Your task to perform on an android device: open app "Walmart Shopping & Grocery" Image 0: 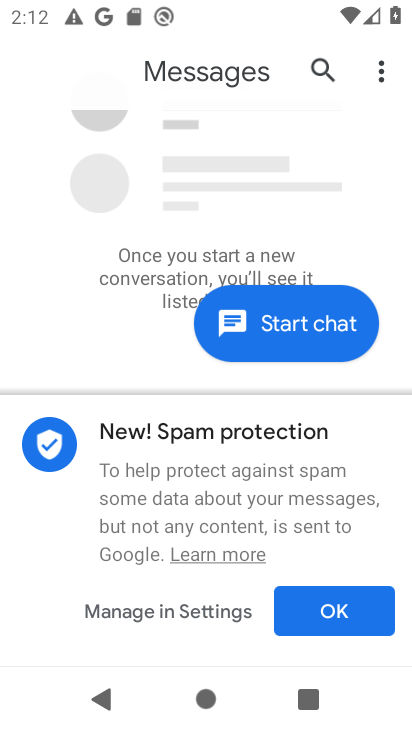
Step 0: press home button
Your task to perform on an android device: open app "Walmart Shopping & Grocery" Image 1: 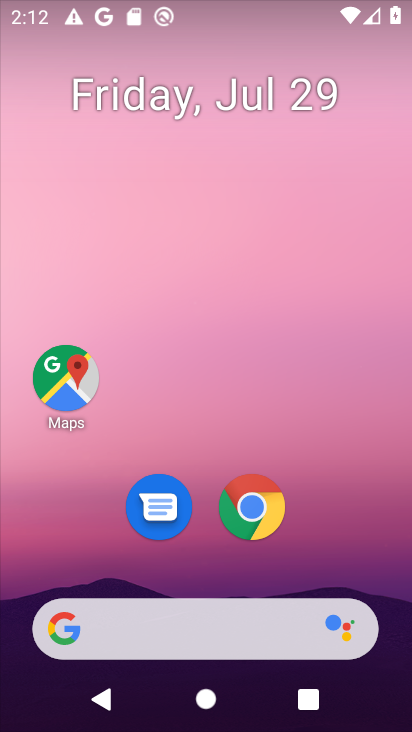
Step 1: drag from (220, 583) to (228, 147)
Your task to perform on an android device: open app "Walmart Shopping & Grocery" Image 2: 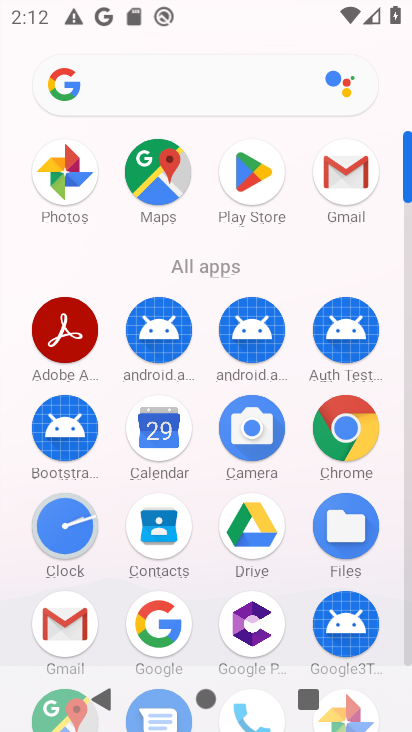
Step 2: click (405, 660)
Your task to perform on an android device: open app "Walmart Shopping & Grocery" Image 3: 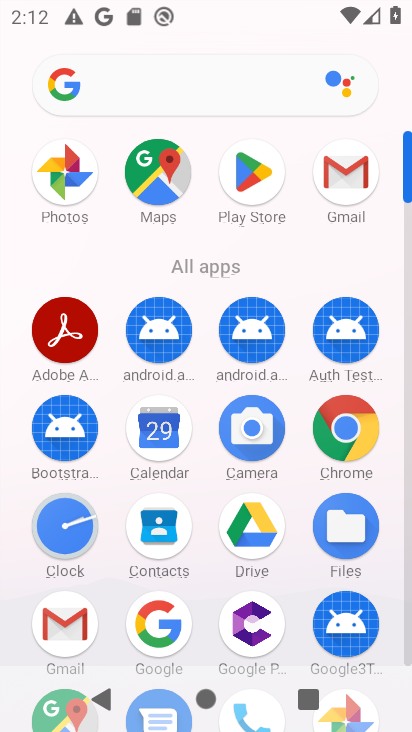
Step 3: click (405, 660)
Your task to perform on an android device: open app "Walmart Shopping & Grocery" Image 4: 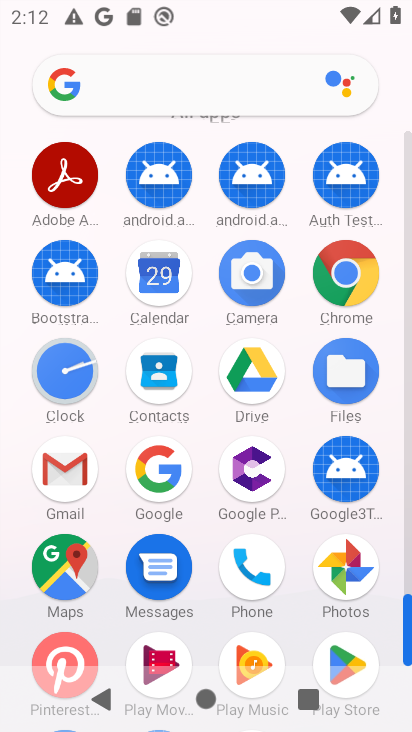
Step 4: click (261, 84)
Your task to perform on an android device: open app "Walmart Shopping & Grocery" Image 5: 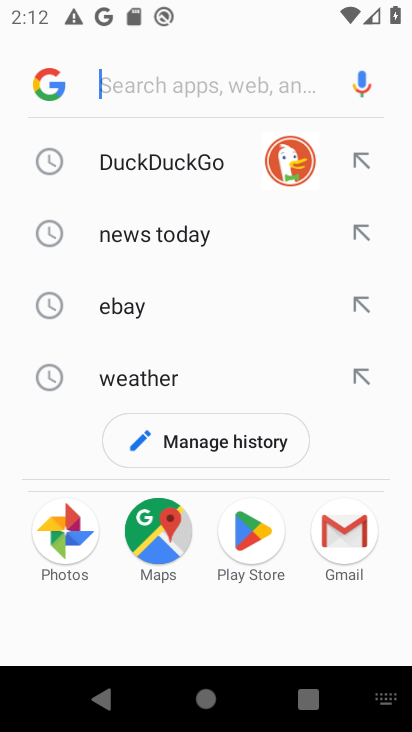
Step 5: type "walmart"
Your task to perform on an android device: open app "Walmart Shopping & Grocery" Image 6: 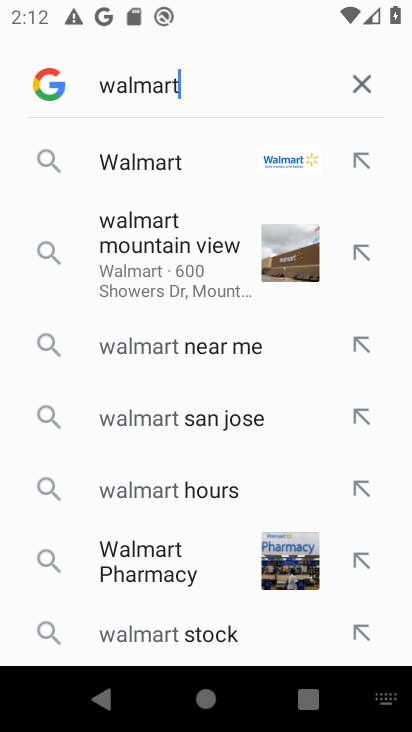
Step 6: click (185, 161)
Your task to perform on an android device: open app "Walmart Shopping & Grocery" Image 7: 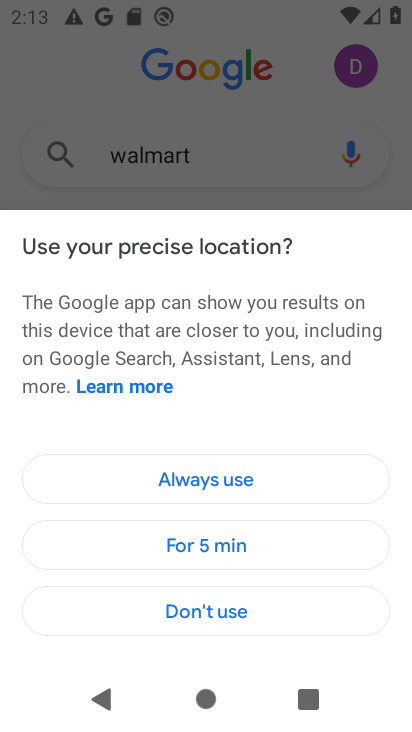
Step 7: click (206, 603)
Your task to perform on an android device: open app "Walmart Shopping & Grocery" Image 8: 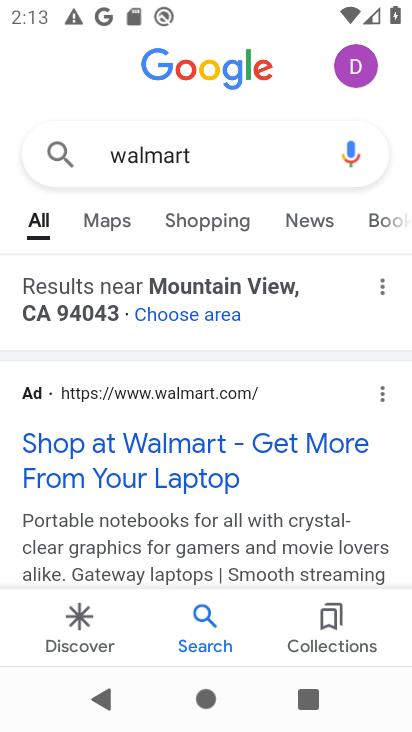
Step 8: task complete